Your task to perform on an android device: Do I have any events today? Image 0: 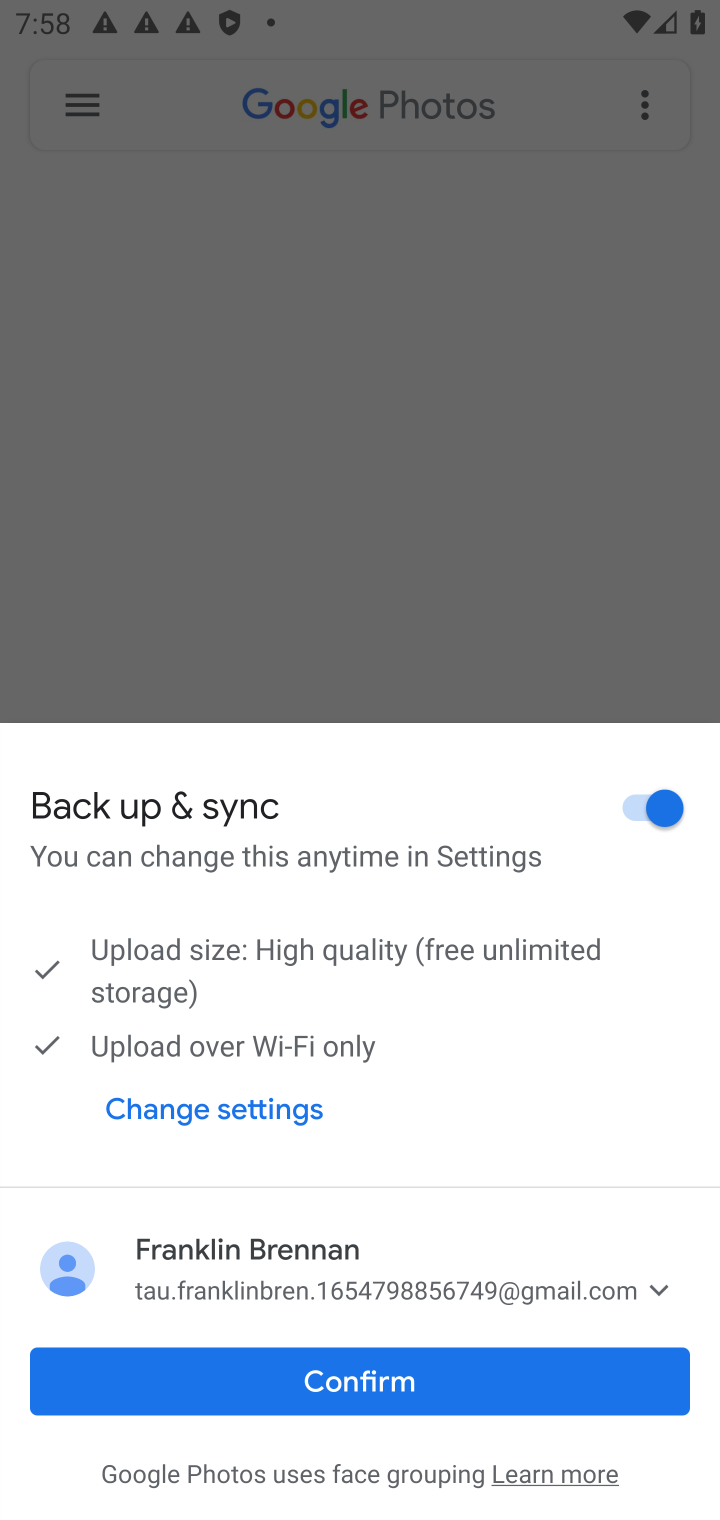
Step 0: press home button
Your task to perform on an android device: Do I have any events today? Image 1: 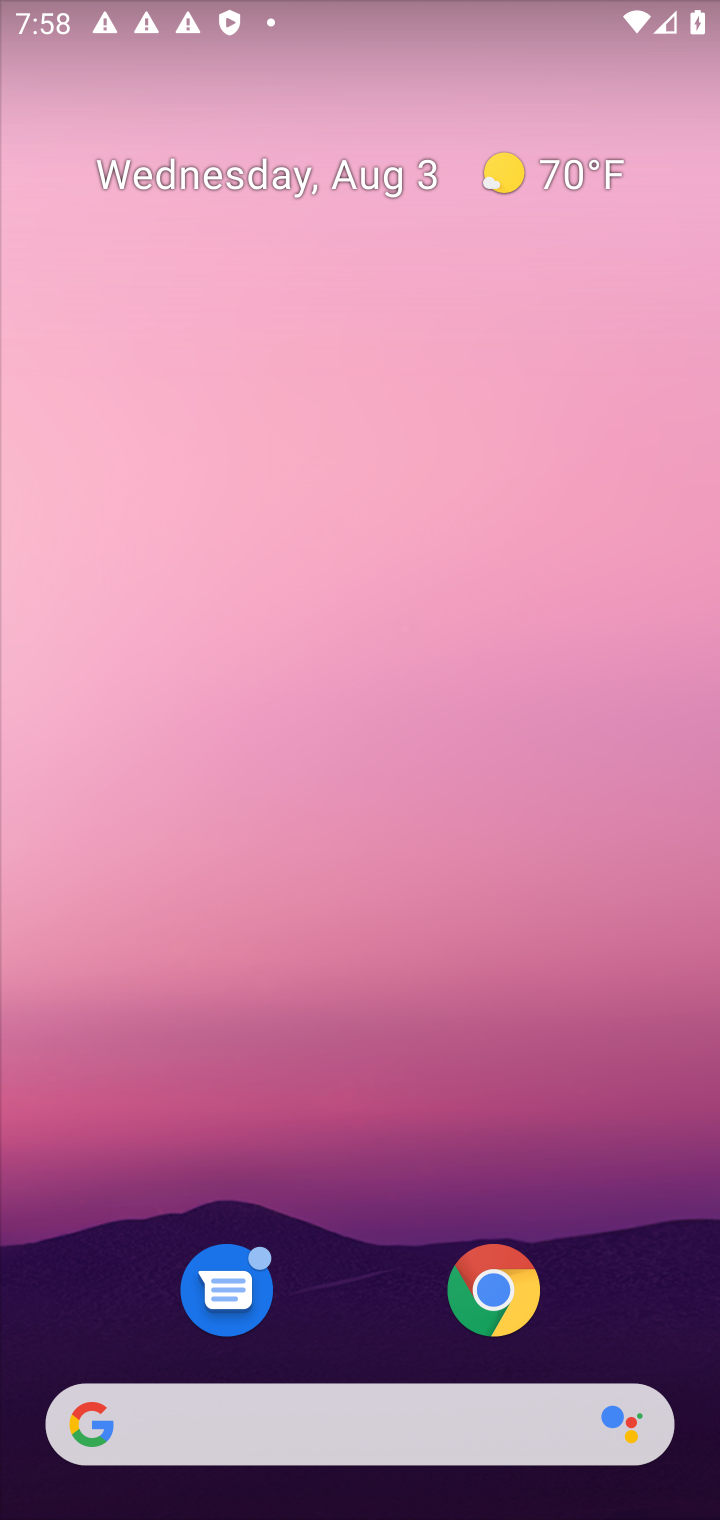
Step 1: drag from (403, 1050) to (495, 333)
Your task to perform on an android device: Do I have any events today? Image 2: 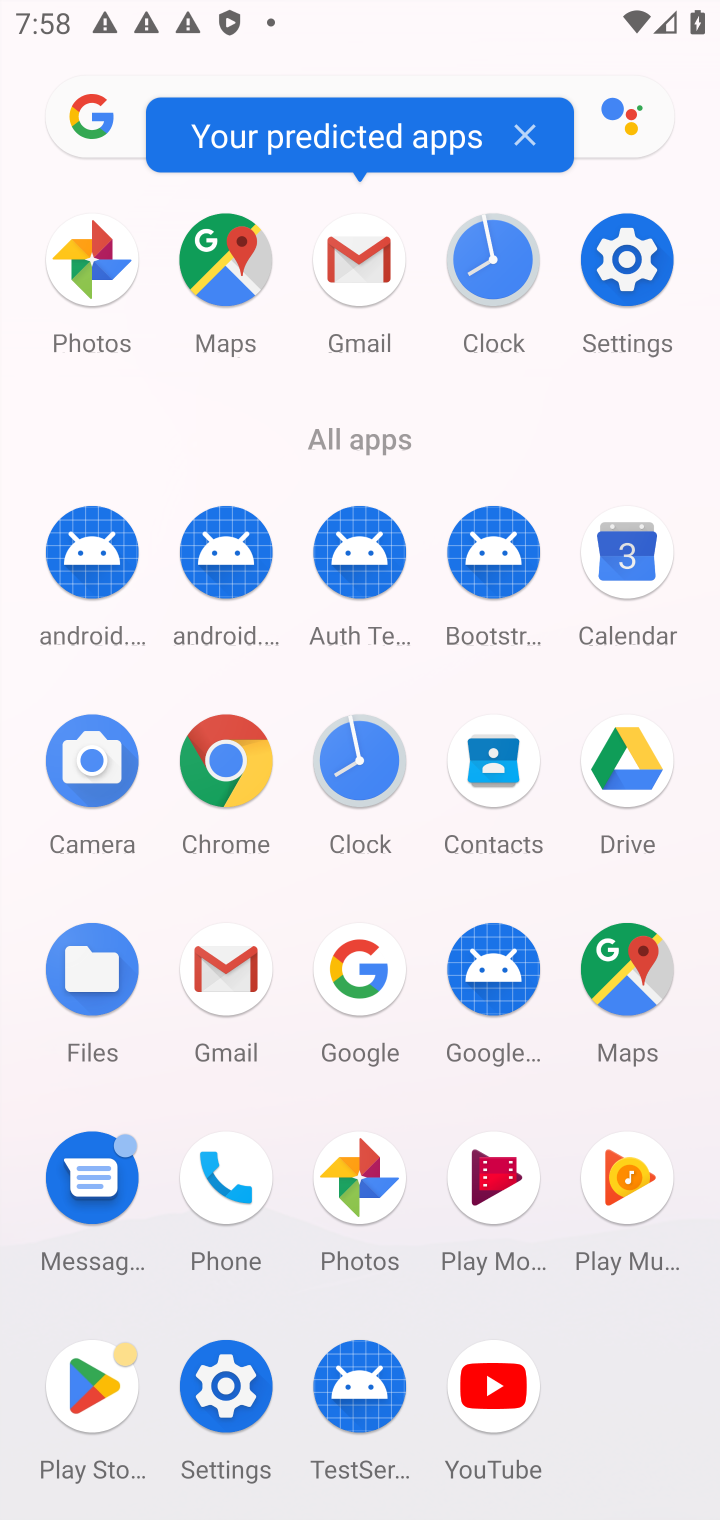
Step 2: click (628, 563)
Your task to perform on an android device: Do I have any events today? Image 3: 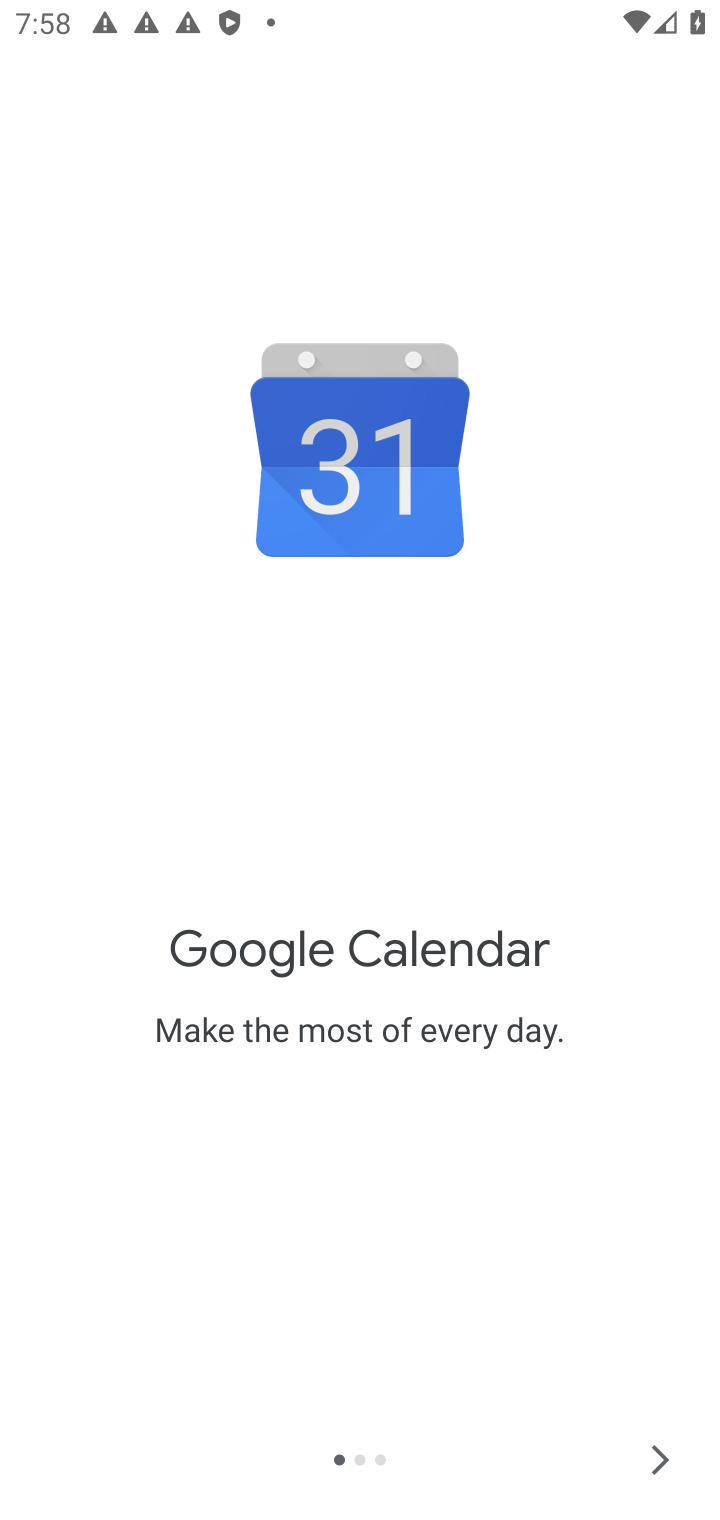
Step 3: click (653, 1465)
Your task to perform on an android device: Do I have any events today? Image 4: 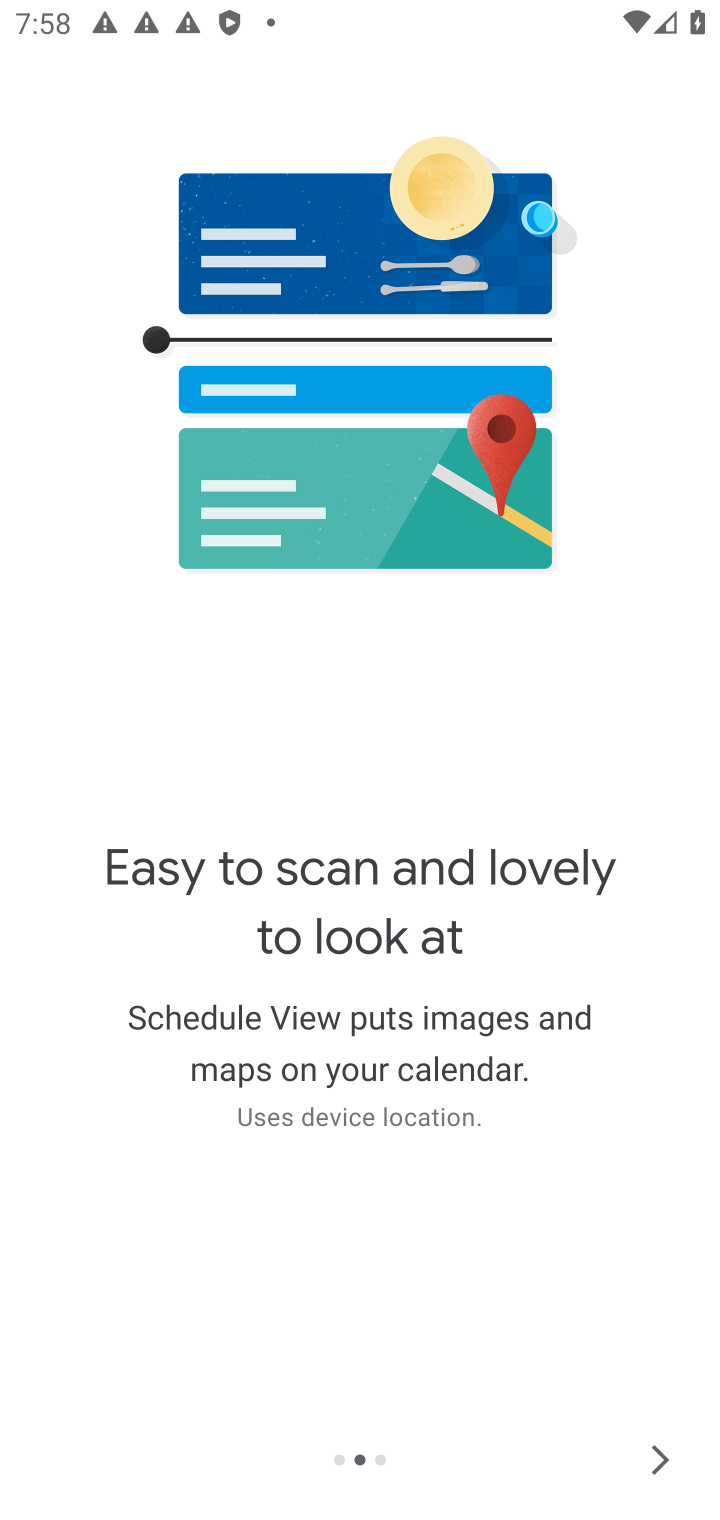
Step 4: click (649, 1467)
Your task to perform on an android device: Do I have any events today? Image 5: 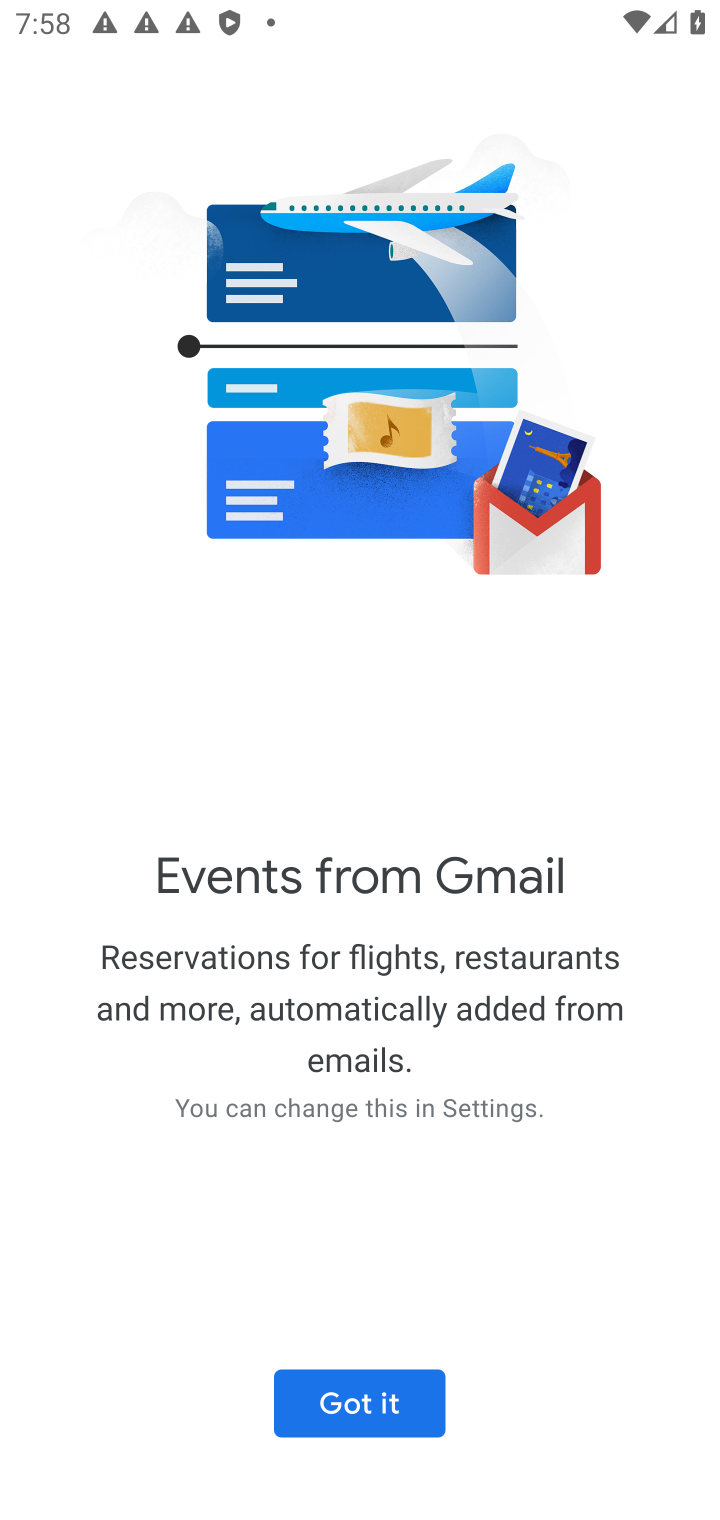
Step 5: click (405, 1404)
Your task to perform on an android device: Do I have any events today? Image 6: 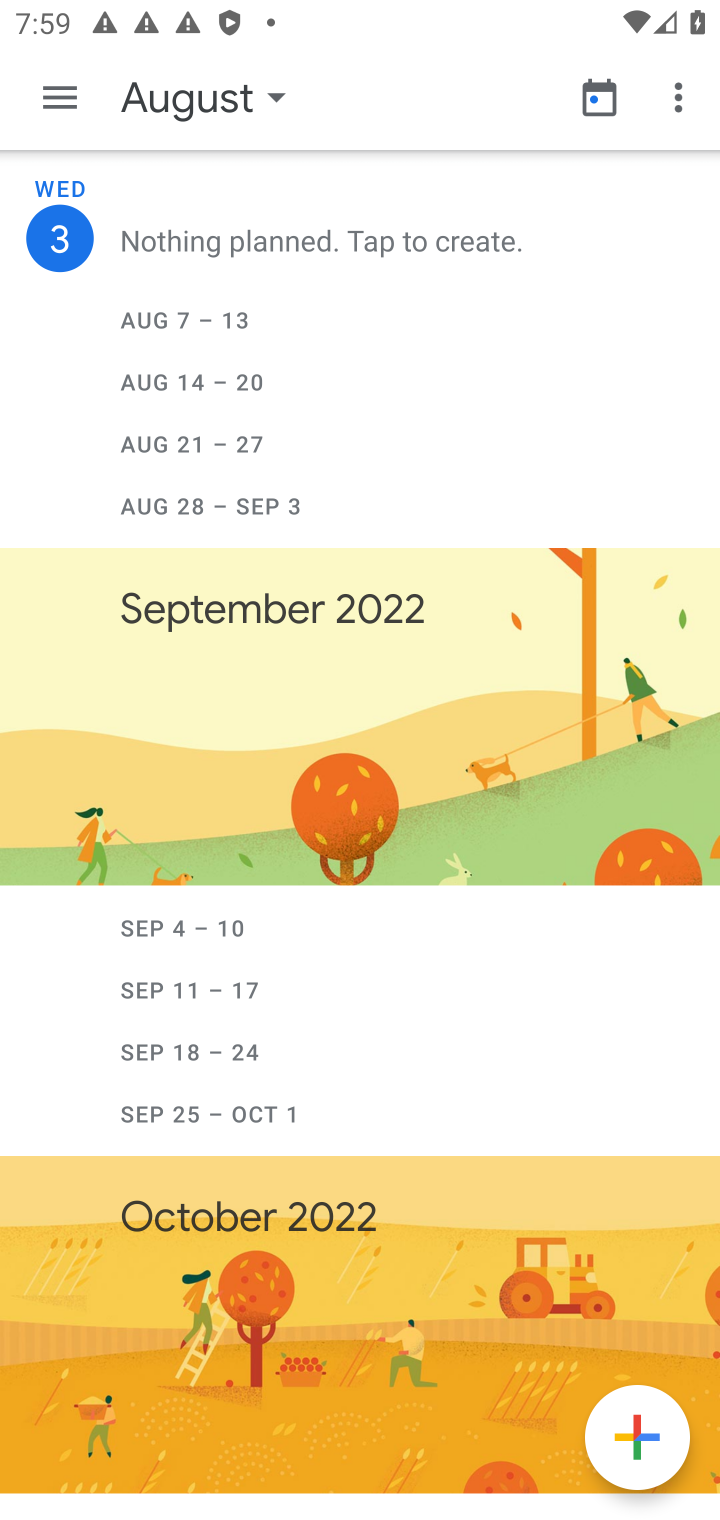
Step 6: click (205, 107)
Your task to perform on an android device: Do I have any events today? Image 7: 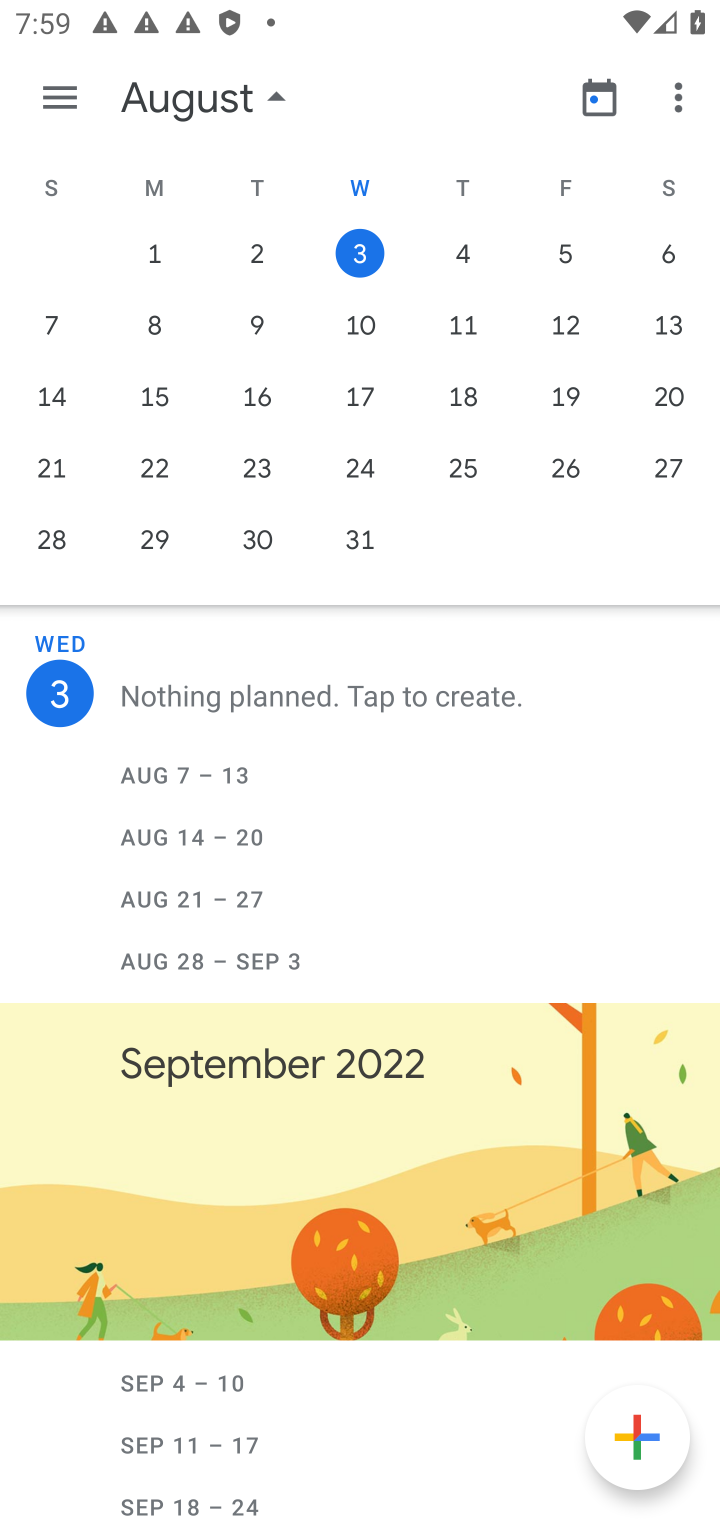
Step 7: click (355, 254)
Your task to perform on an android device: Do I have any events today? Image 8: 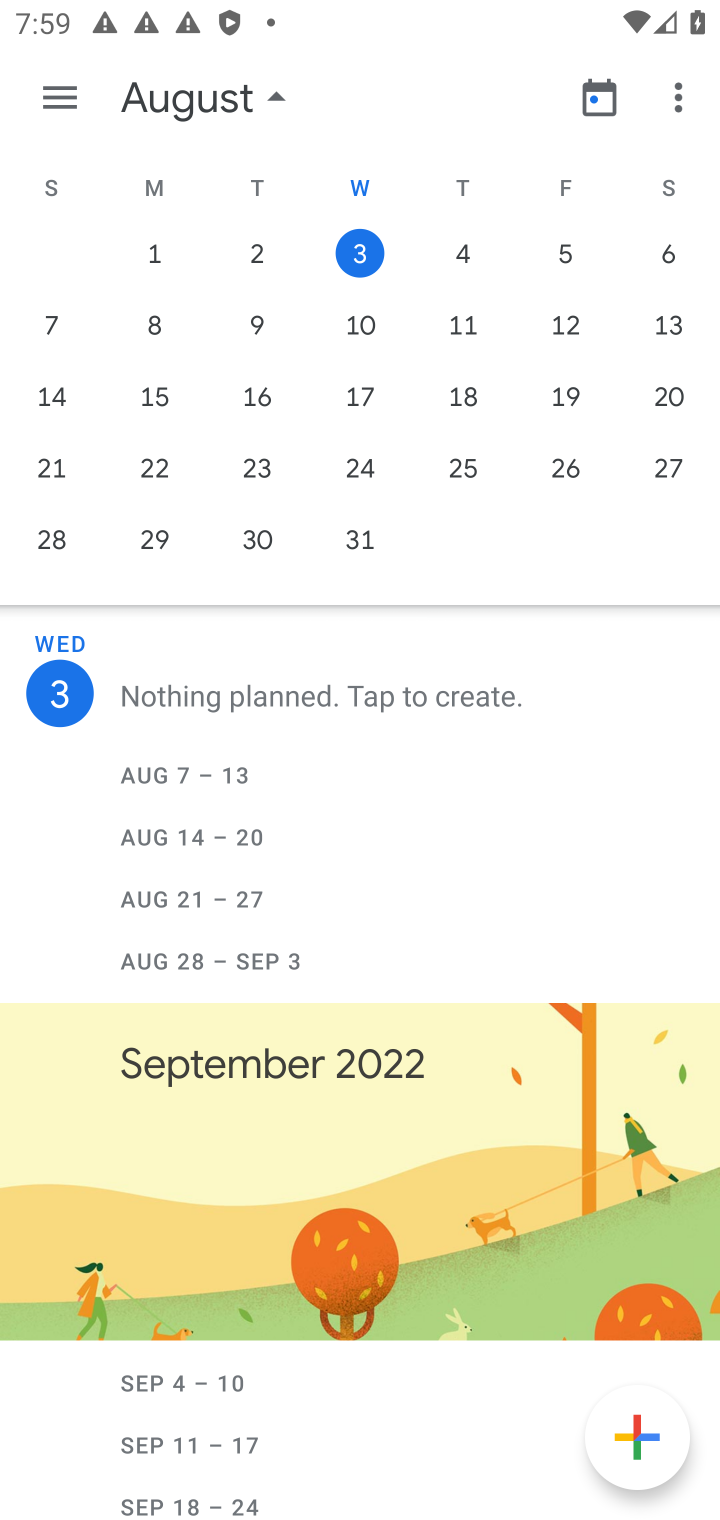
Step 8: task complete